Your task to perform on an android device: Open privacy settings Image 0: 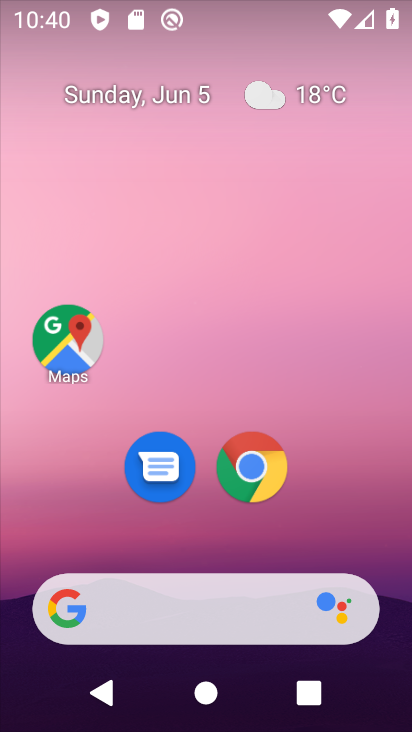
Step 0: drag from (189, 527) to (233, 52)
Your task to perform on an android device: Open privacy settings Image 1: 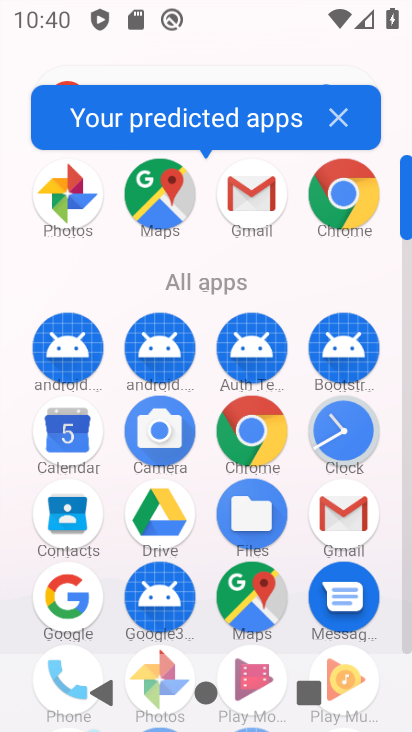
Step 1: drag from (114, 355) to (103, 20)
Your task to perform on an android device: Open privacy settings Image 2: 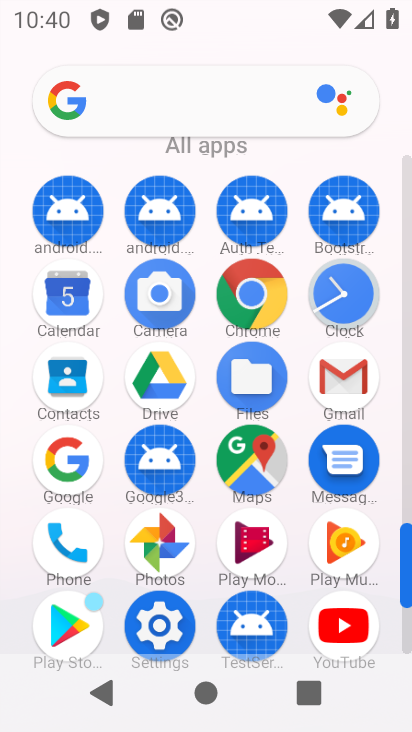
Step 2: click (161, 629)
Your task to perform on an android device: Open privacy settings Image 3: 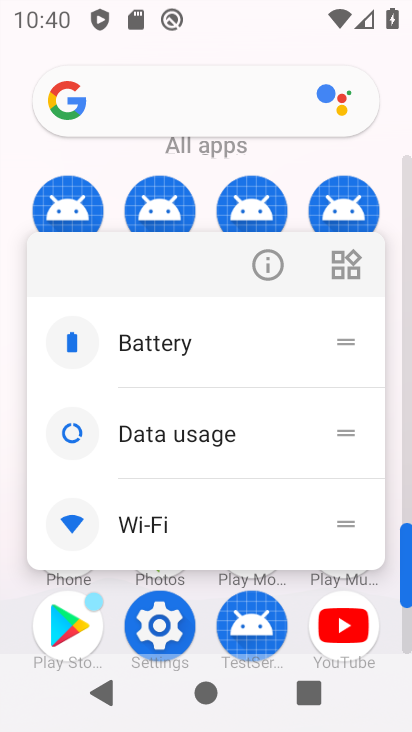
Step 3: click (123, 163)
Your task to perform on an android device: Open privacy settings Image 4: 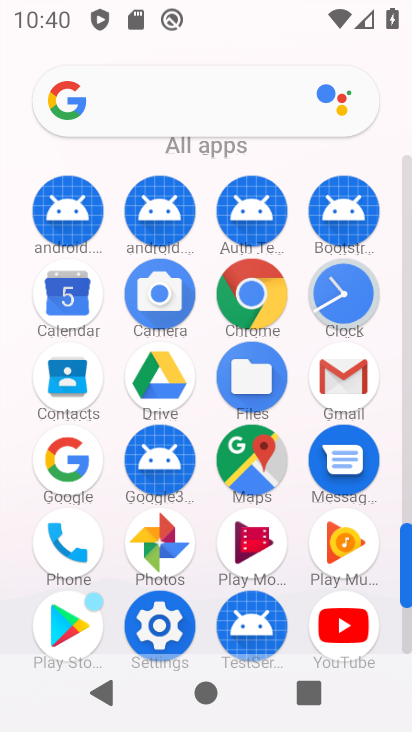
Step 4: click (155, 625)
Your task to perform on an android device: Open privacy settings Image 5: 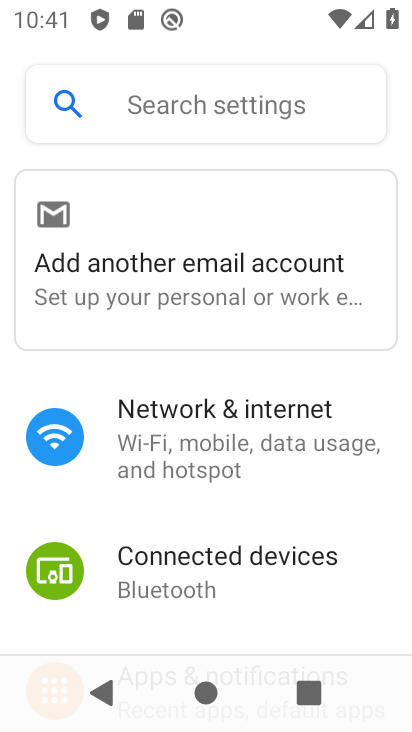
Step 5: drag from (290, 588) to (331, 163)
Your task to perform on an android device: Open privacy settings Image 6: 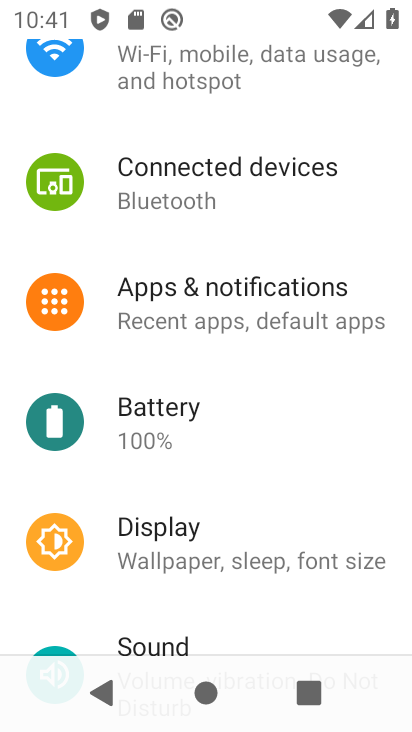
Step 6: drag from (290, 596) to (305, 148)
Your task to perform on an android device: Open privacy settings Image 7: 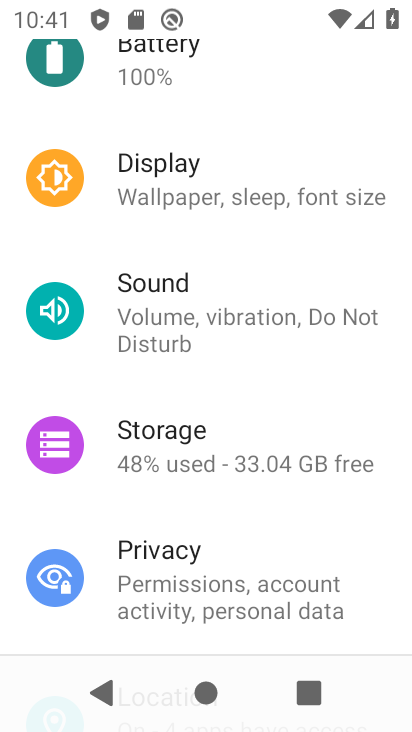
Step 7: click (158, 579)
Your task to perform on an android device: Open privacy settings Image 8: 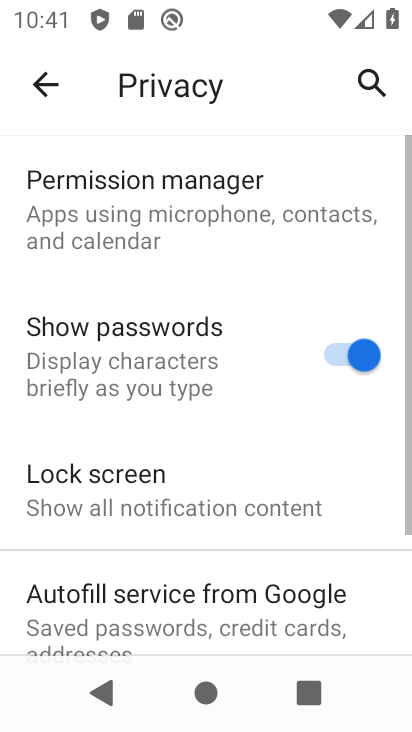
Step 8: task complete